Your task to perform on an android device: What's on my calendar tomorrow? Image 0: 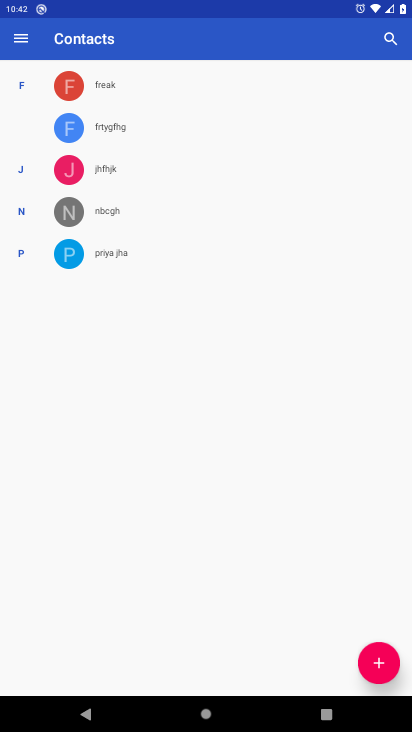
Step 0: press home button
Your task to perform on an android device: What's on my calendar tomorrow? Image 1: 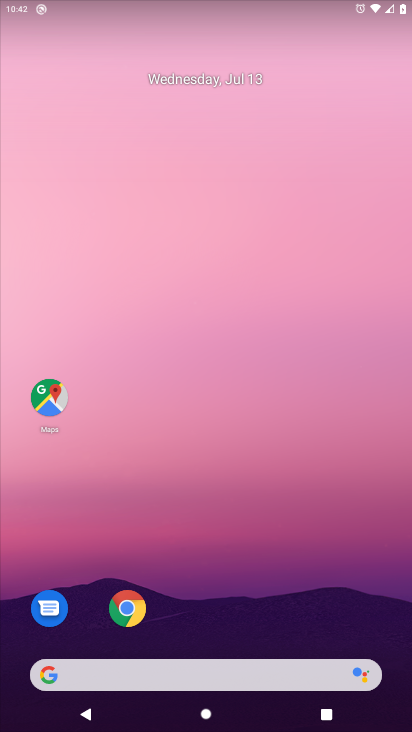
Step 1: drag from (56, 711) to (405, 465)
Your task to perform on an android device: What's on my calendar tomorrow? Image 2: 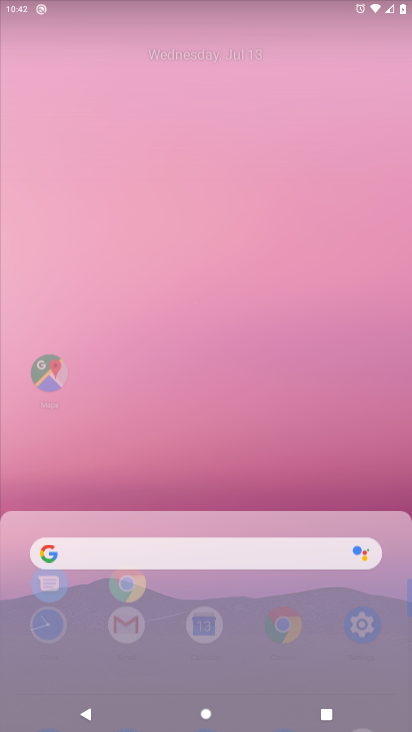
Step 2: click (288, 413)
Your task to perform on an android device: What's on my calendar tomorrow? Image 3: 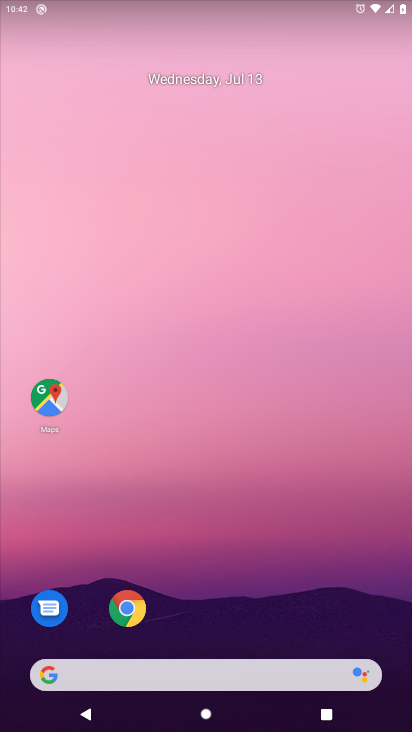
Step 3: task complete